Your task to perform on an android device: open app "Messages" (install if not already installed) Image 0: 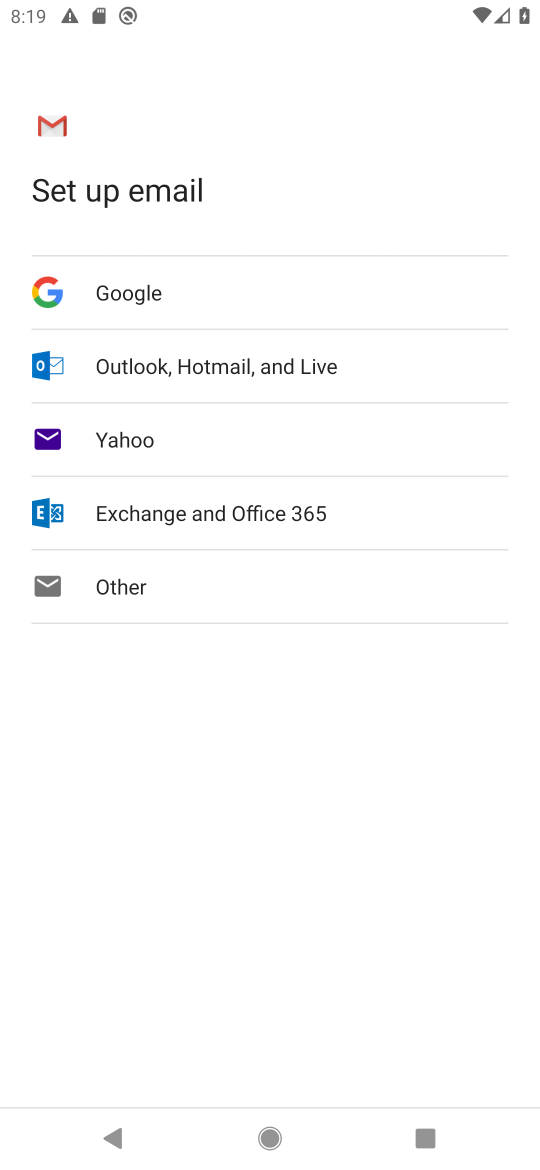
Step 0: press home button
Your task to perform on an android device: open app "Messages" (install if not already installed) Image 1: 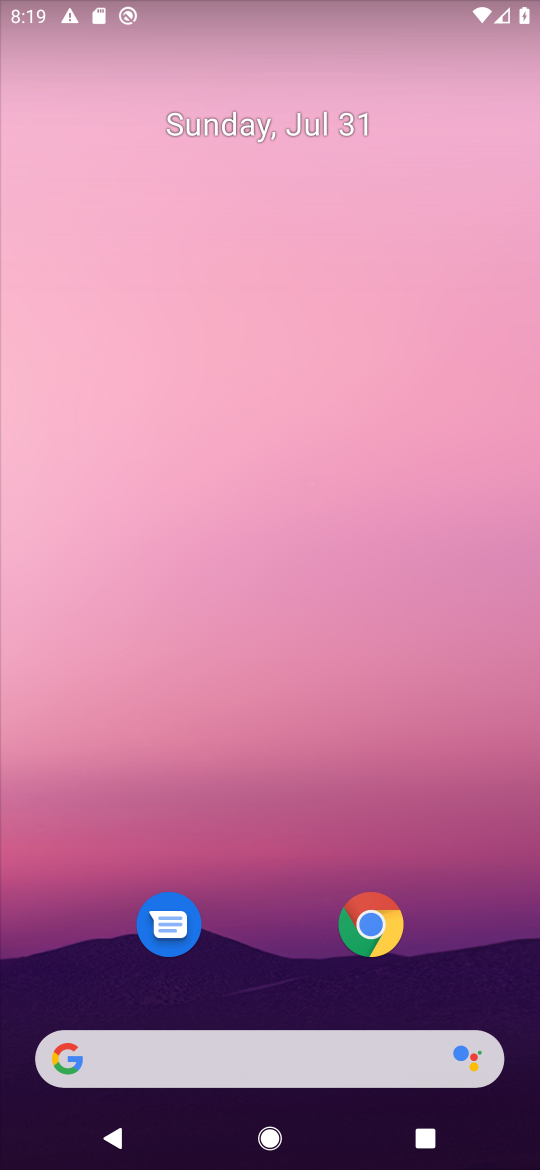
Step 1: drag from (187, 792) to (231, 506)
Your task to perform on an android device: open app "Messages" (install if not already installed) Image 2: 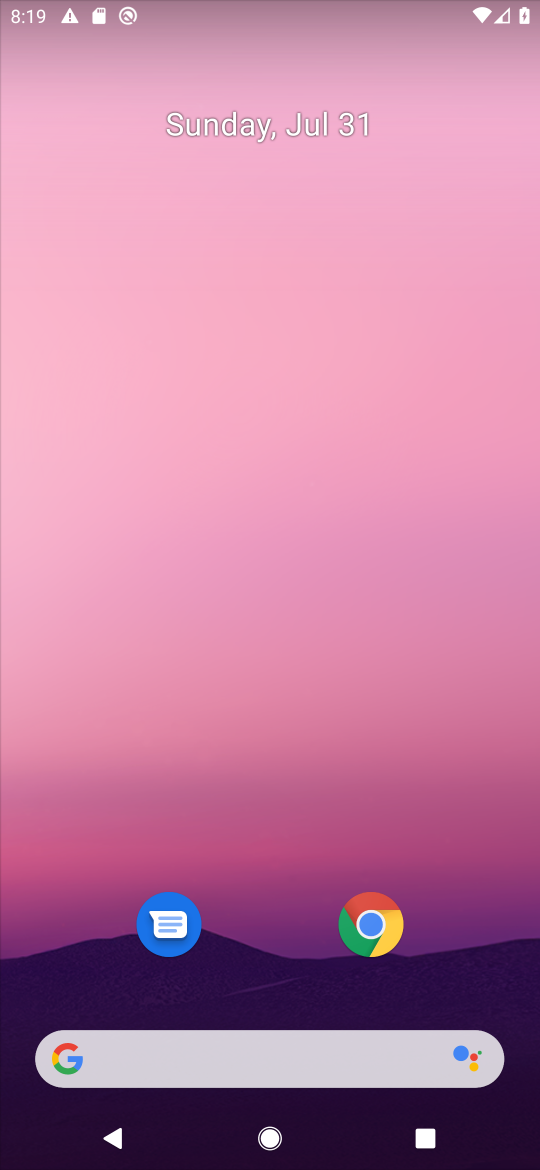
Step 2: drag from (319, 1029) to (313, 418)
Your task to perform on an android device: open app "Messages" (install if not already installed) Image 3: 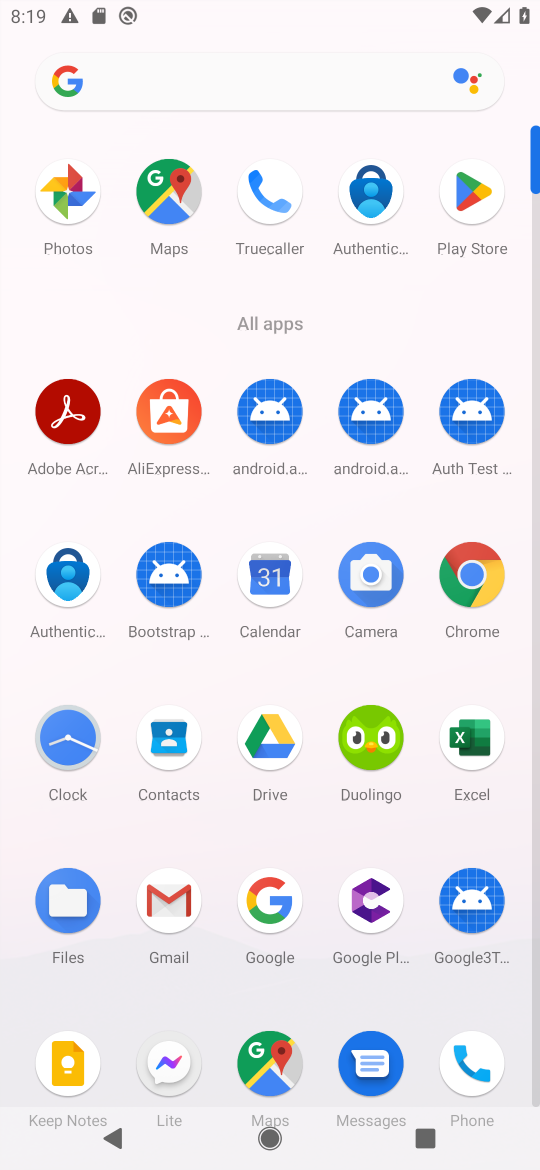
Step 3: click (486, 194)
Your task to perform on an android device: open app "Messages" (install if not already installed) Image 4: 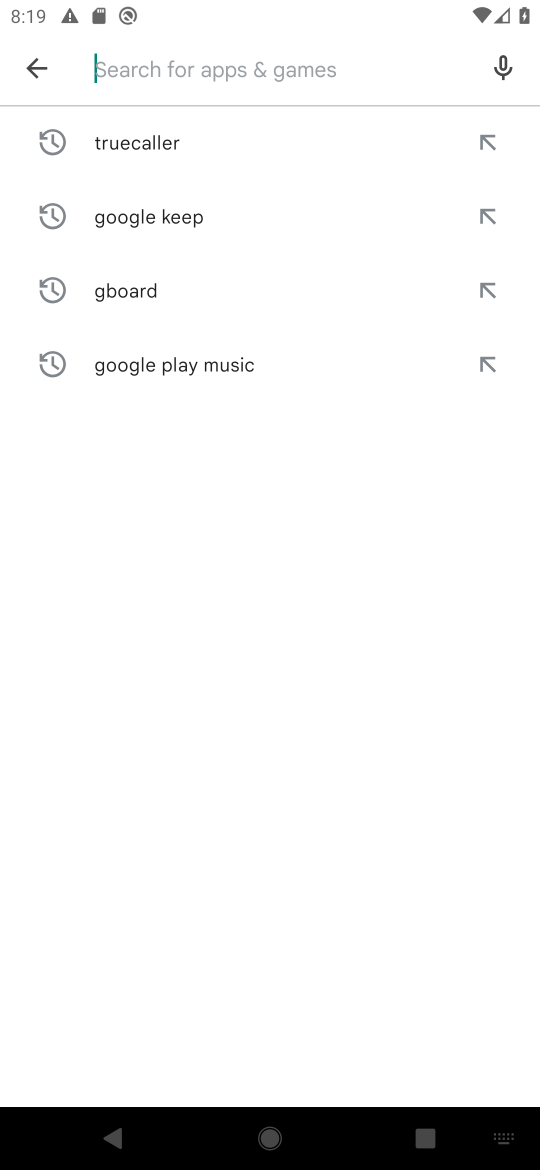
Step 4: type "Messages"
Your task to perform on an android device: open app "Messages" (install if not already installed) Image 5: 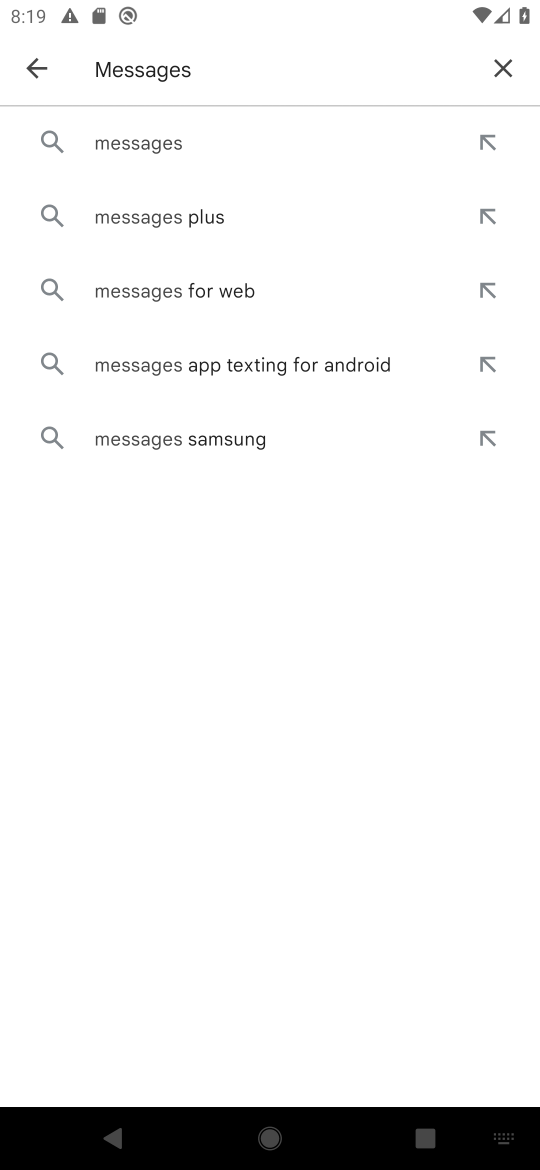
Step 5: click (157, 142)
Your task to perform on an android device: open app "Messages" (install if not already installed) Image 6: 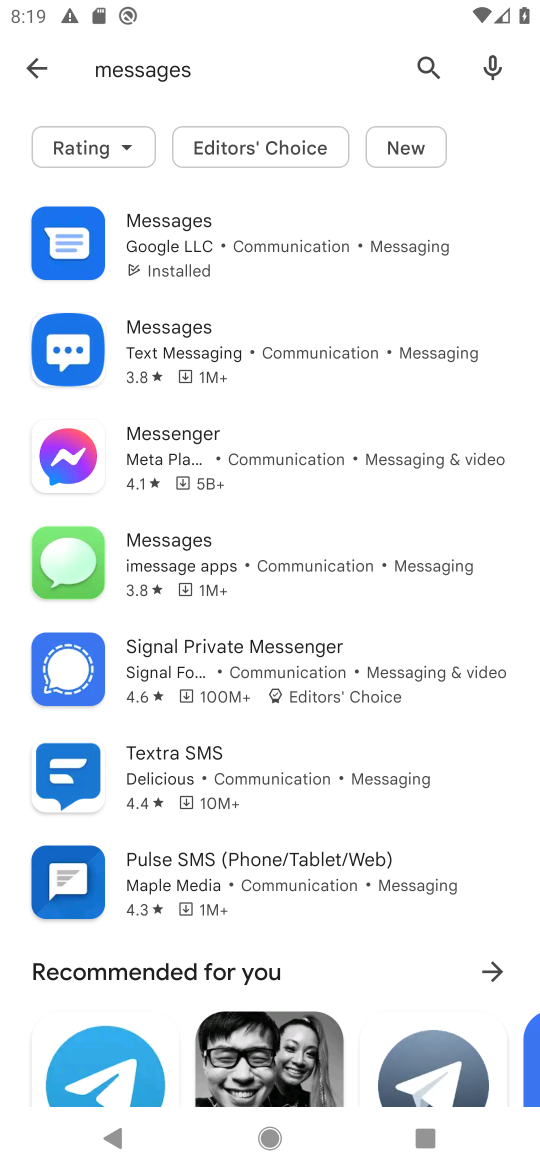
Step 6: task complete